Your task to perform on an android device: change the upload size in google photos Image 0: 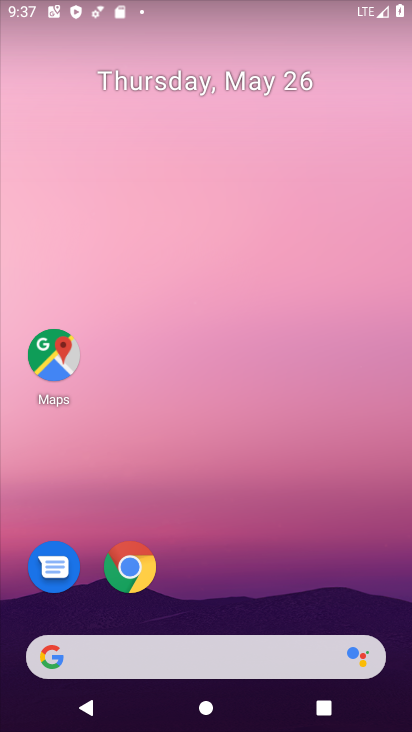
Step 0: drag from (190, 559) to (285, 29)
Your task to perform on an android device: change the upload size in google photos Image 1: 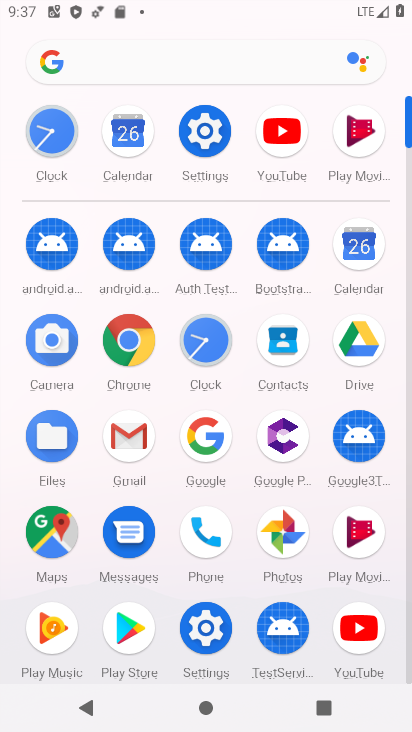
Step 1: click (284, 540)
Your task to perform on an android device: change the upload size in google photos Image 2: 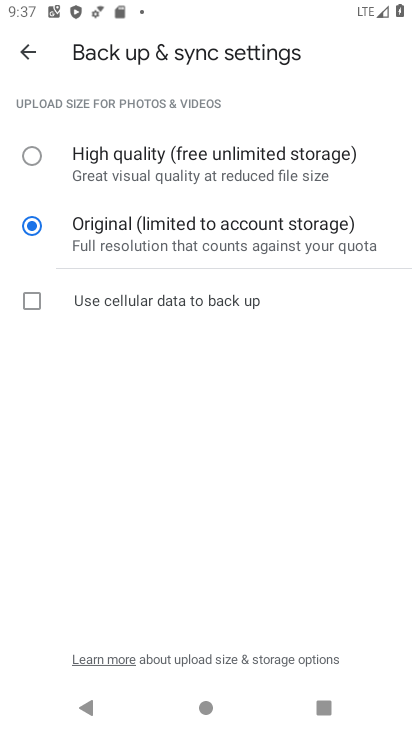
Step 2: click (32, 152)
Your task to perform on an android device: change the upload size in google photos Image 3: 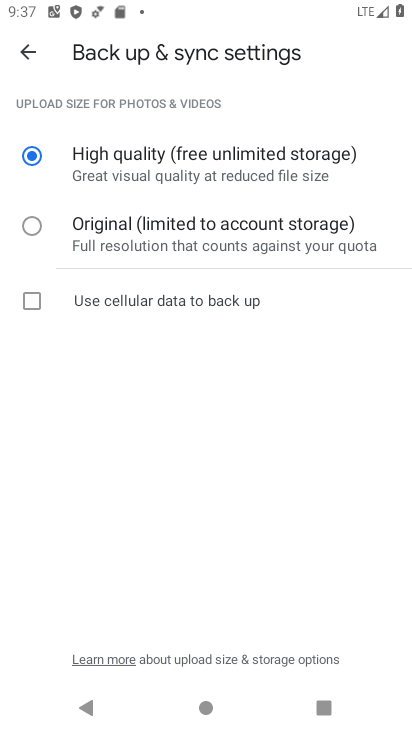
Step 3: task complete